Your task to perform on an android device: delete a single message in the gmail app Image 0: 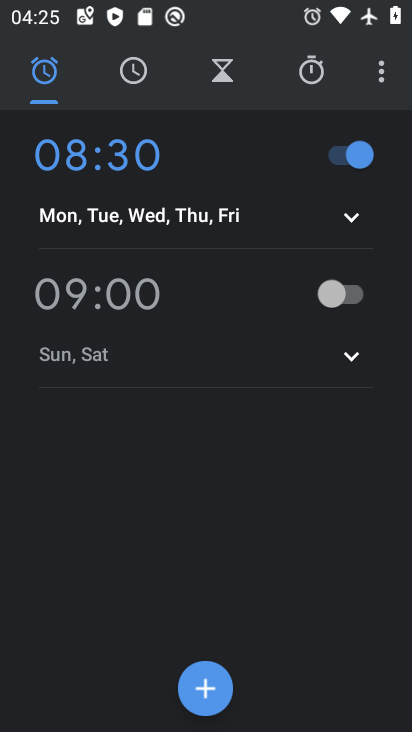
Step 0: press home button
Your task to perform on an android device: delete a single message in the gmail app Image 1: 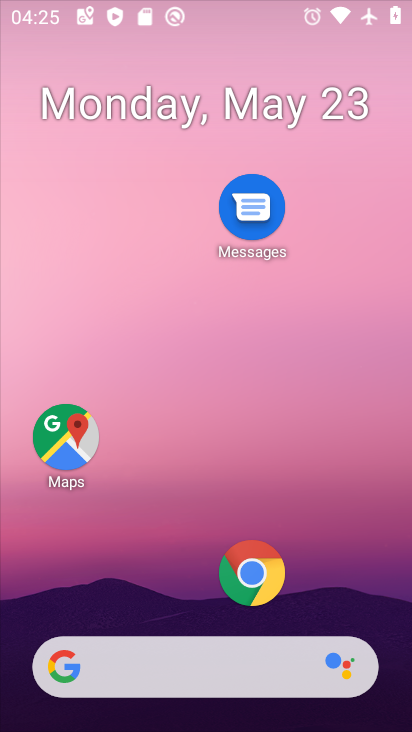
Step 1: drag from (354, 682) to (328, 141)
Your task to perform on an android device: delete a single message in the gmail app Image 2: 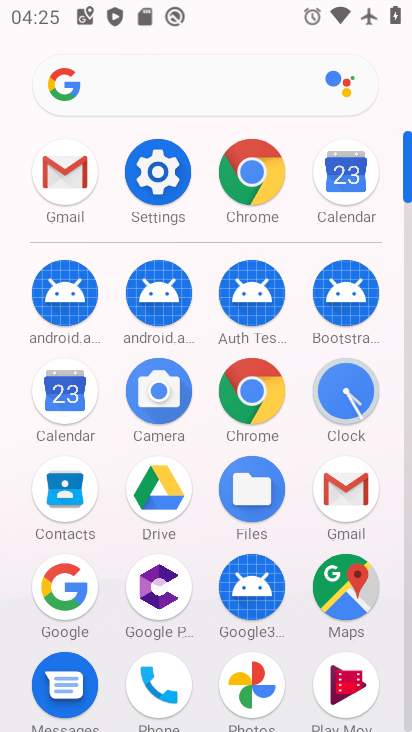
Step 2: click (345, 491)
Your task to perform on an android device: delete a single message in the gmail app Image 3: 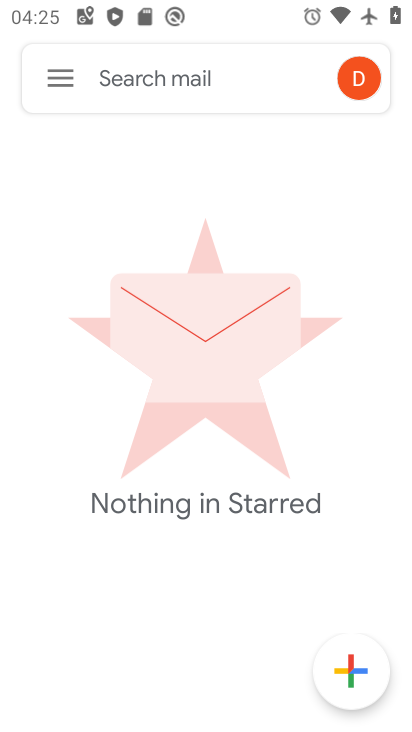
Step 3: task complete